Your task to perform on an android device: remove spam from my inbox in the gmail app Image 0: 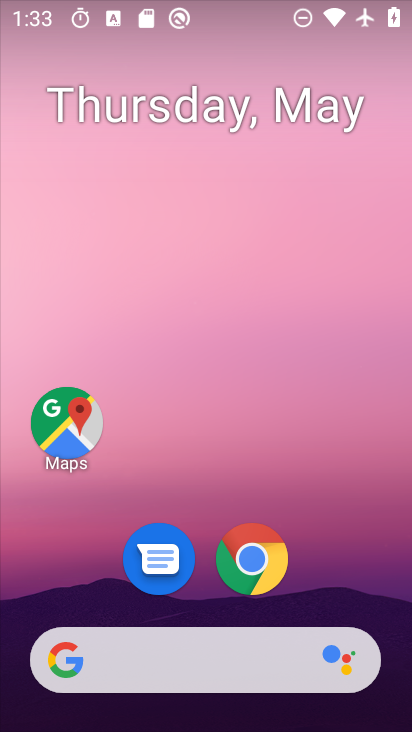
Step 0: drag from (219, 561) to (237, 193)
Your task to perform on an android device: remove spam from my inbox in the gmail app Image 1: 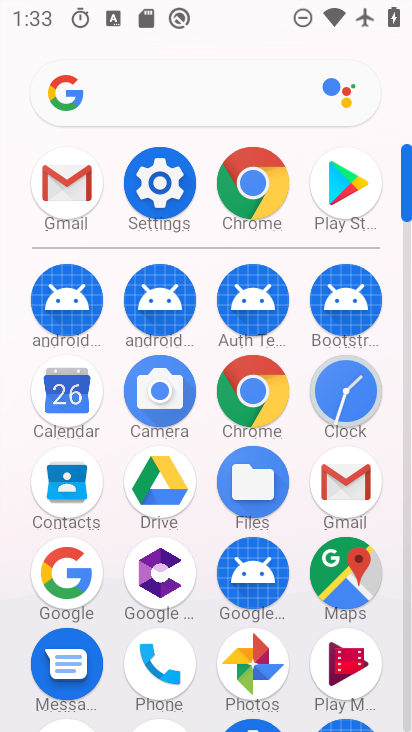
Step 1: click (358, 492)
Your task to perform on an android device: remove spam from my inbox in the gmail app Image 2: 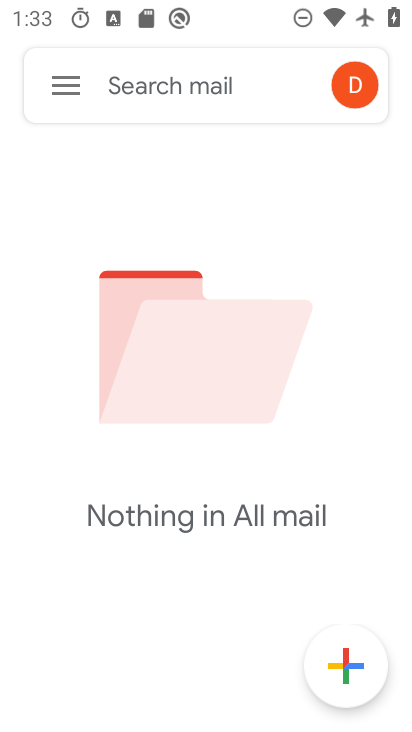
Step 2: click (75, 82)
Your task to perform on an android device: remove spam from my inbox in the gmail app Image 3: 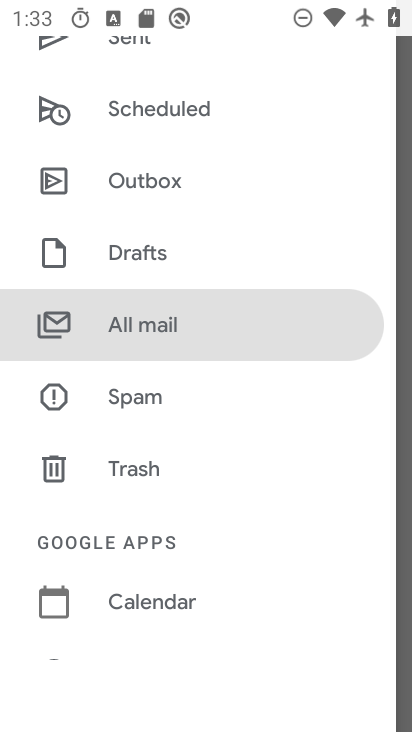
Step 3: task complete